Your task to perform on an android device: toggle notification dots Image 0: 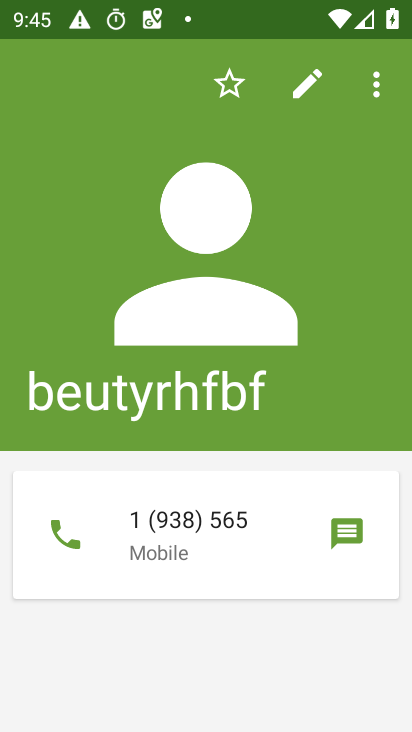
Step 0: press home button
Your task to perform on an android device: toggle notification dots Image 1: 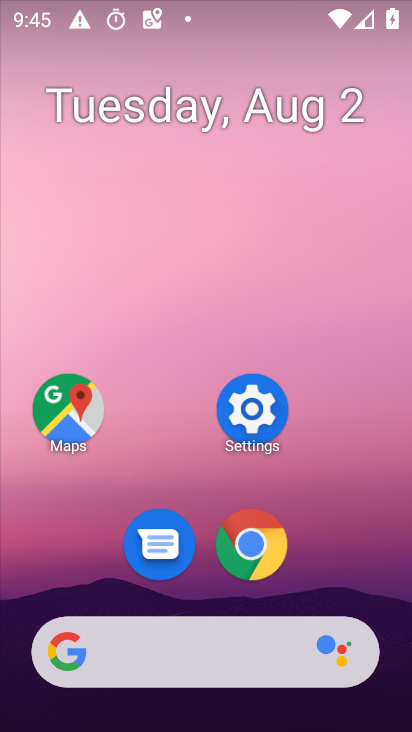
Step 1: click (251, 411)
Your task to perform on an android device: toggle notification dots Image 2: 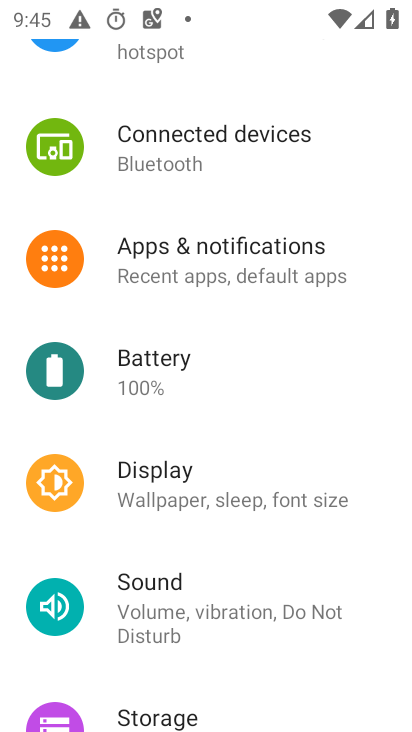
Step 2: click (234, 255)
Your task to perform on an android device: toggle notification dots Image 3: 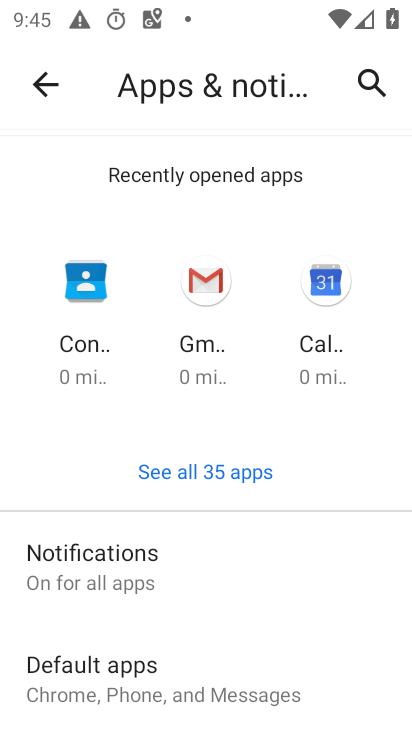
Step 3: click (123, 567)
Your task to perform on an android device: toggle notification dots Image 4: 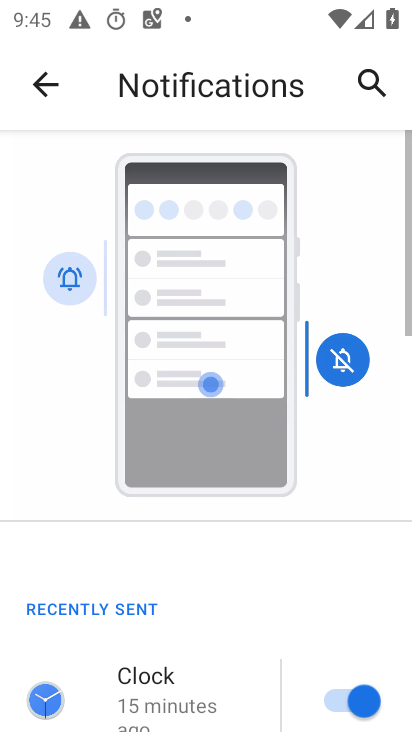
Step 4: drag from (260, 572) to (381, 122)
Your task to perform on an android device: toggle notification dots Image 5: 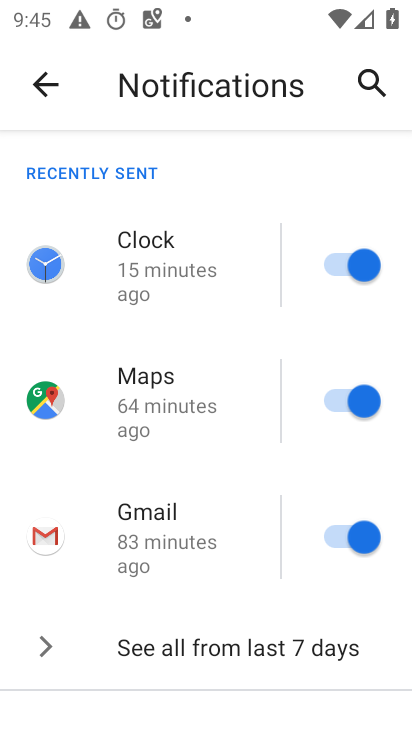
Step 5: drag from (249, 590) to (344, 26)
Your task to perform on an android device: toggle notification dots Image 6: 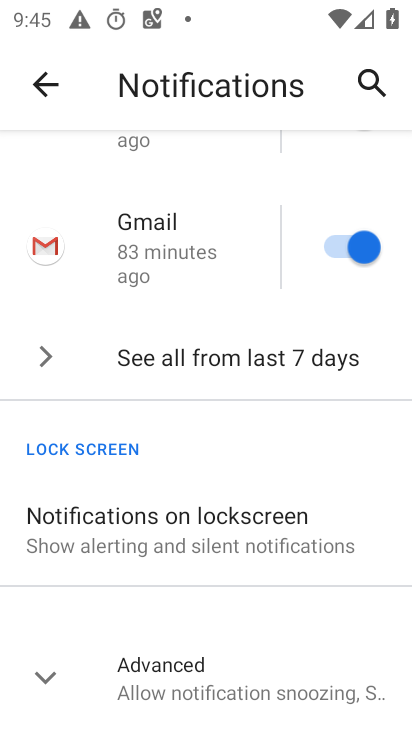
Step 6: click (176, 673)
Your task to perform on an android device: toggle notification dots Image 7: 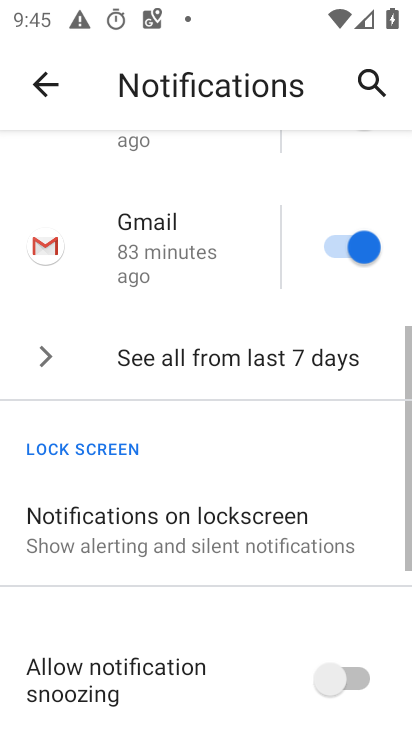
Step 7: drag from (216, 630) to (368, 112)
Your task to perform on an android device: toggle notification dots Image 8: 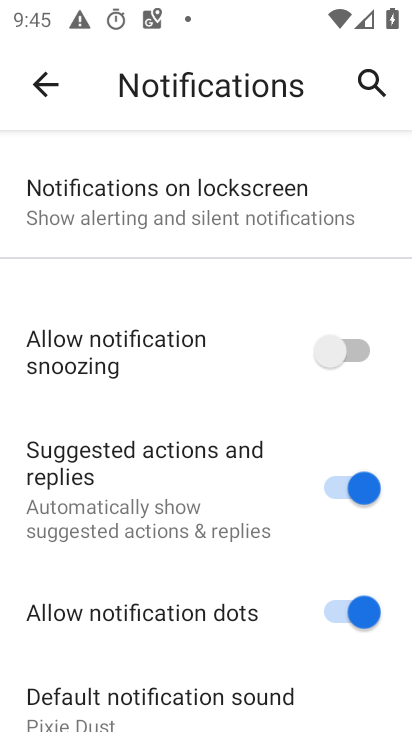
Step 8: click (345, 610)
Your task to perform on an android device: toggle notification dots Image 9: 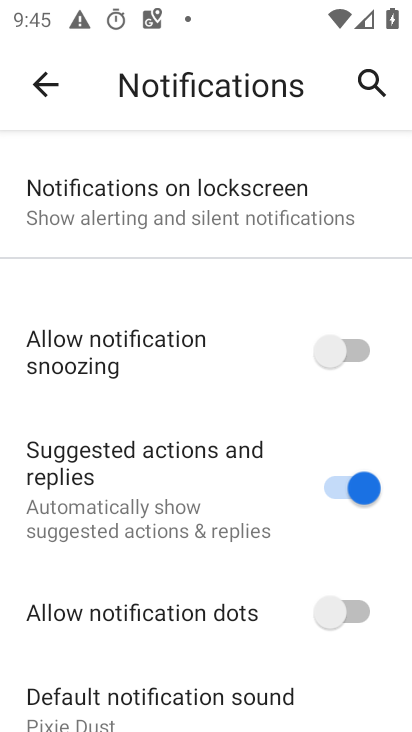
Step 9: task complete